Your task to perform on an android device: Do I have any events today? Image 0: 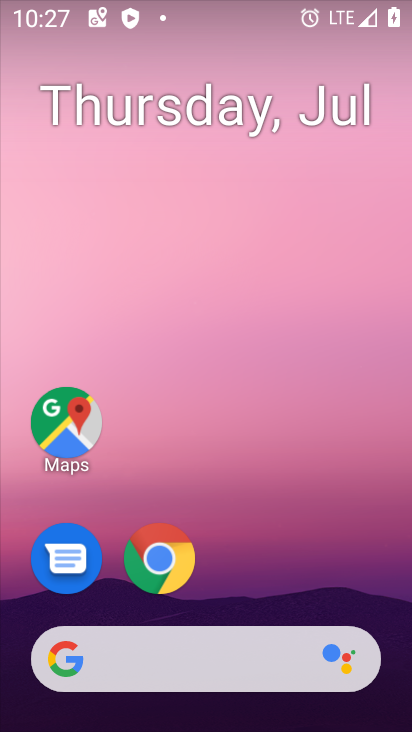
Step 0: drag from (351, 564) to (358, 206)
Your task to perform on an android device: Do I have any events today? Image 1: 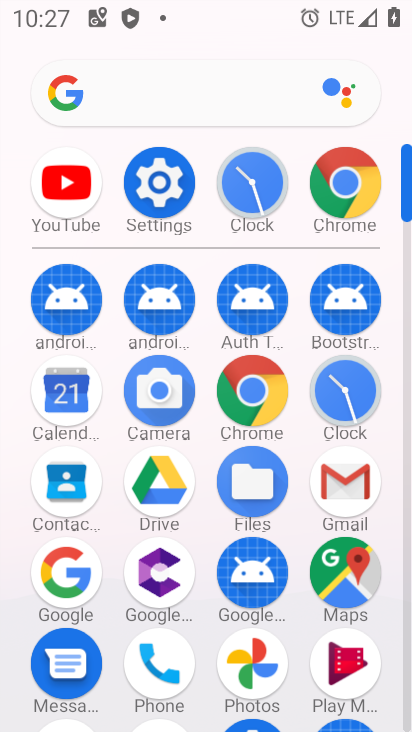
Step 1: click (70, 401)
Your task to perform on an android device: Do I have any events today? Image 2: 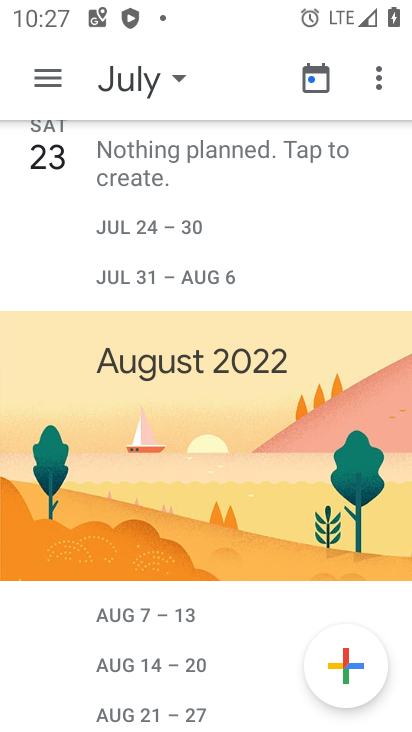
Step 2: click (174, 77)
Your task to perform on an android device: Do I have any events today? Image 3: 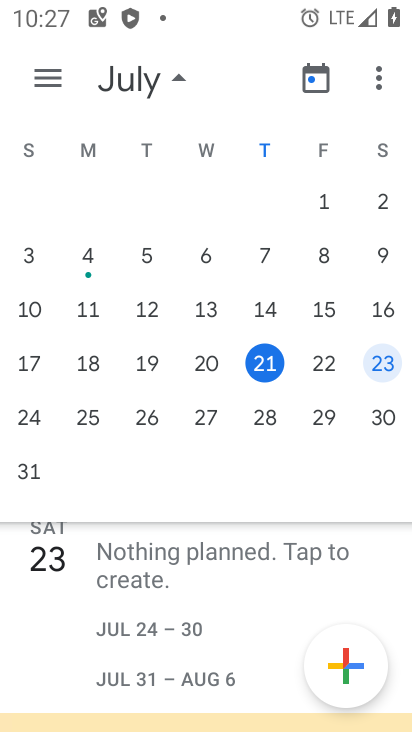
Step 3: click (325, 366)
Your task to perform on an android device: Do I have any events today? Image 4: 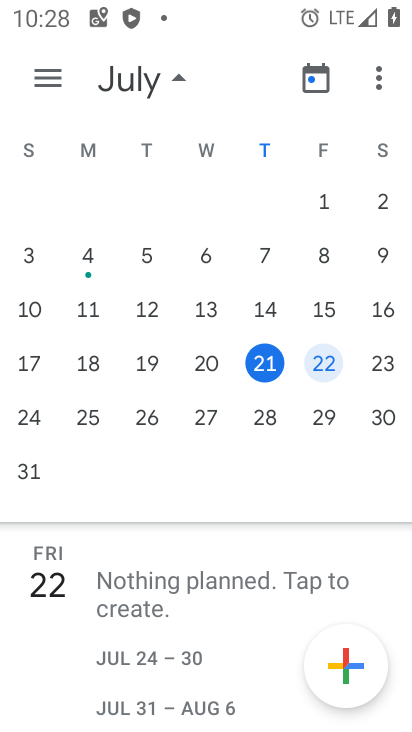
Step 4: task complete